Your task to perform on an android device: open app "Life360: Find Family & Friends" (install if not already installed) Image 0: 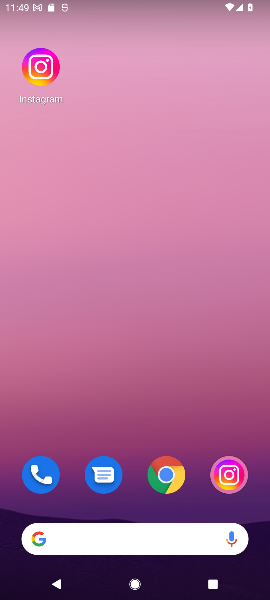
Step 0: drag from (123, 498) to (181, 9)
Your task to perform on an android device: open app "Life360: Find Family & Friends" (install if not already installed) Image 1: 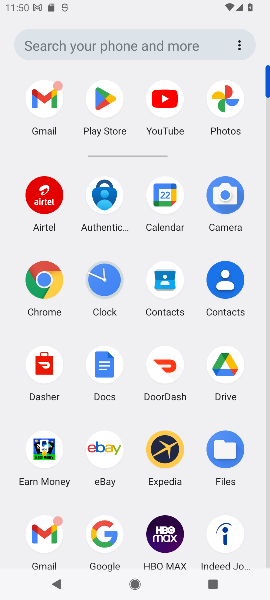
Step 1: click (103, 105)
Your task to perform on an android device: open app "Life360: Find Family & Friends" (install if not already installed) Image 2: 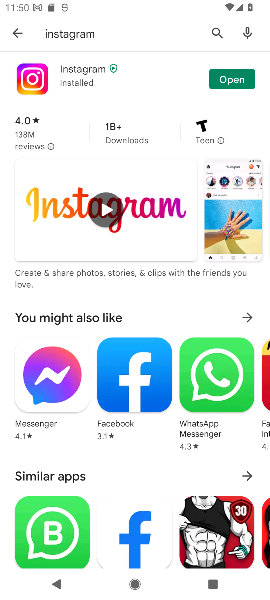
Step 2: click (22, 16)
Your task to perform on an android device: open app "Life360: Find Family & Friends" (install if not already installed) Image 3: 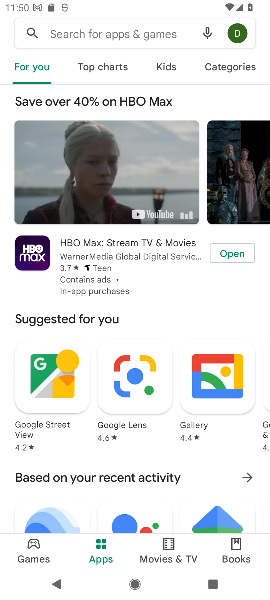
Step 3: click (95, 34)
Your task to perform on an android device: open app "Life360: Find Family & Friends" (install if not already installed) Image 4: 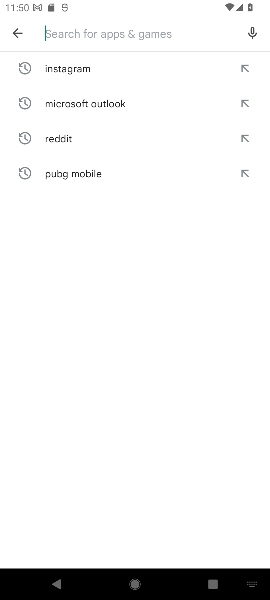
Step 4: type "Life360: Find Family & Friends"
Your task to perform on an android device: open app "Life360: Find Family & Friends" (install if not already installed) Image 5: 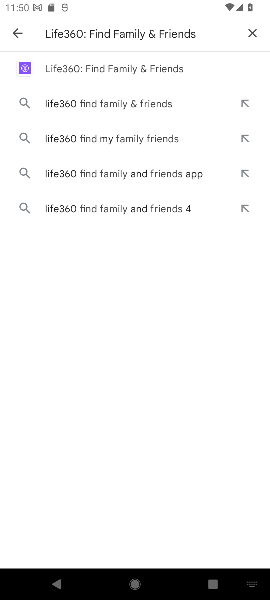
Step 5: click (88, 68)
Your task to perform on an android device: open app "Life360: Find Family & Friends" (install if not already installed) Image 6: 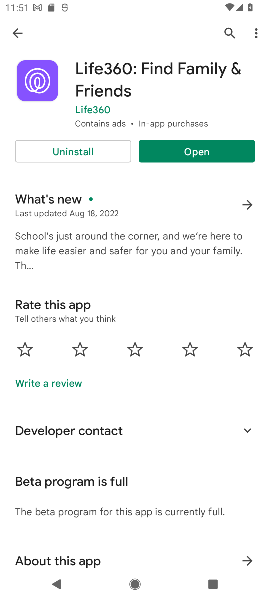
Step 6: click (184, 147)
Your task to perform on an android device: open app "Life360: Find Family & Friends" (install if not already installed) Image 7: 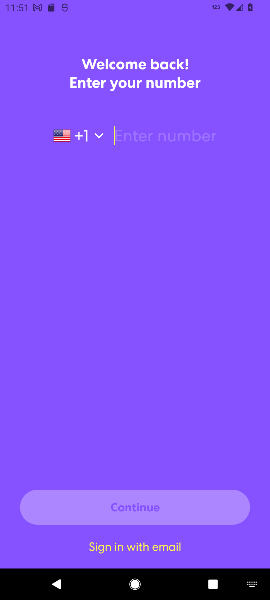
Step 7: task complete